Your task to perform on an android device: change your default location settings in chrome Image 0: 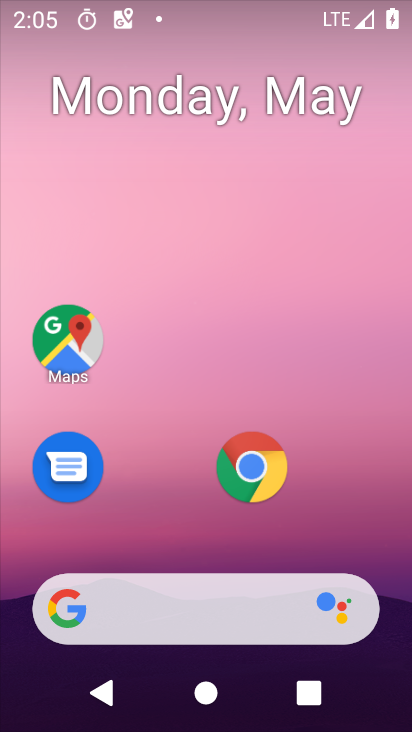
Step 0: drag from (189, 532) to (238, 213)
Your task to perform on an android device: change your default location settings in chrome Image 1: 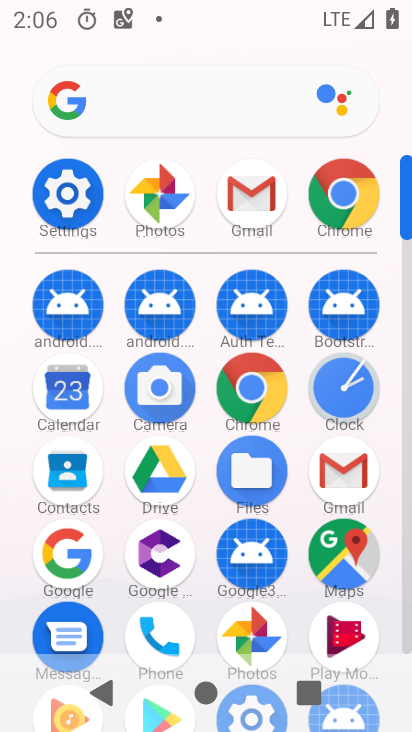
Step 1: click (237, 389)
Your task to perform on an android device: change your default location settings in chrome Image 2: 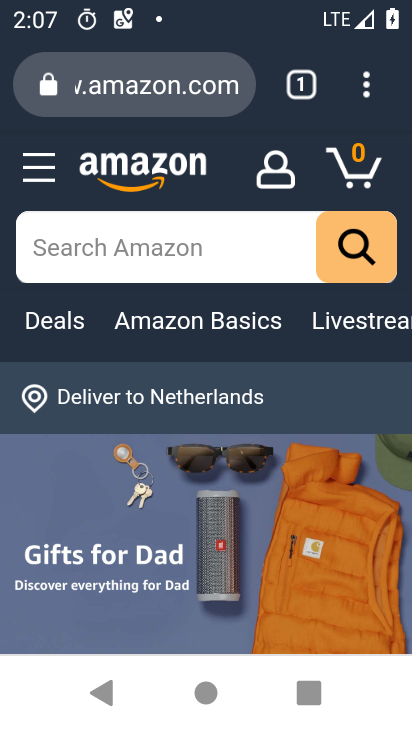
Step 2: click (361, 88)
Your task to perform on an android device: change your default location settings in chrome Image 3: 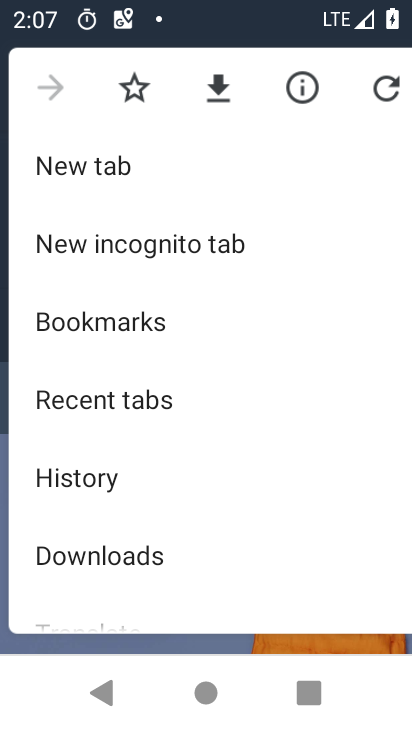
Step 3: click (176, 234)
Your task to perform on an android device: change your default location settings in chrome Image 4: 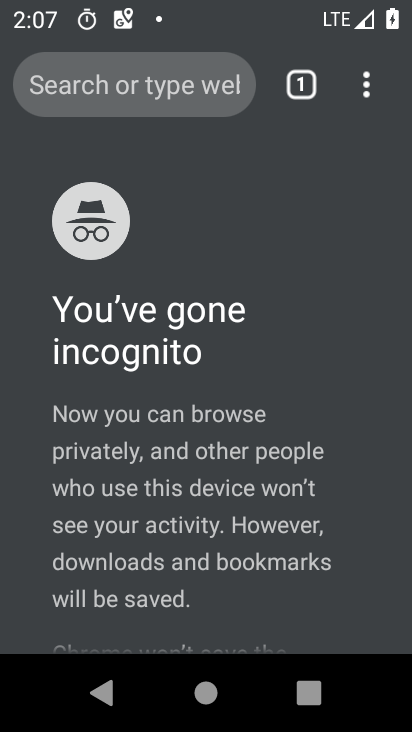
Step 4: drag from (295, 499) to (307, 327)
Your task to perform on an android device: change your default location settings in chrome Image 5: 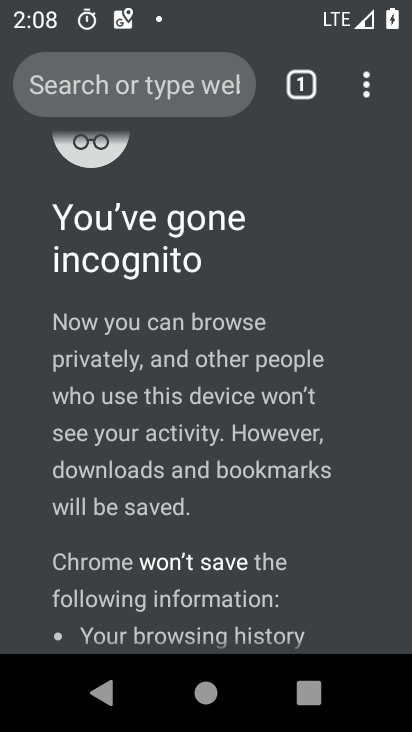
Step 5: click (363, 75)
Your task to perform on an android device: change your default location settings in chrome Image 6: 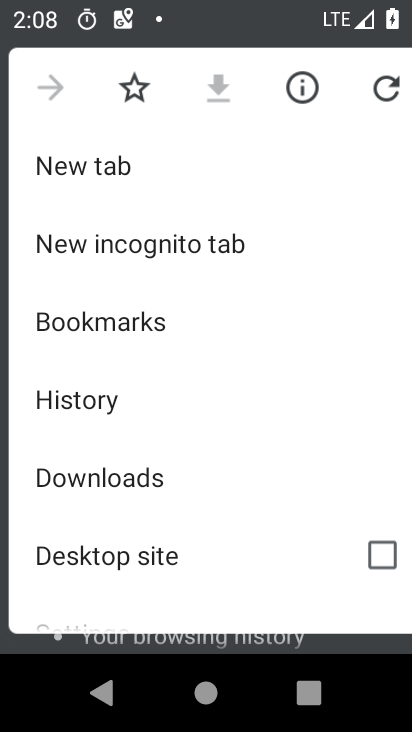
Step 6: drag from (189, 429) to (314, 135)
Your task to perform on an android device: change your default location settings in chrome Image 7: 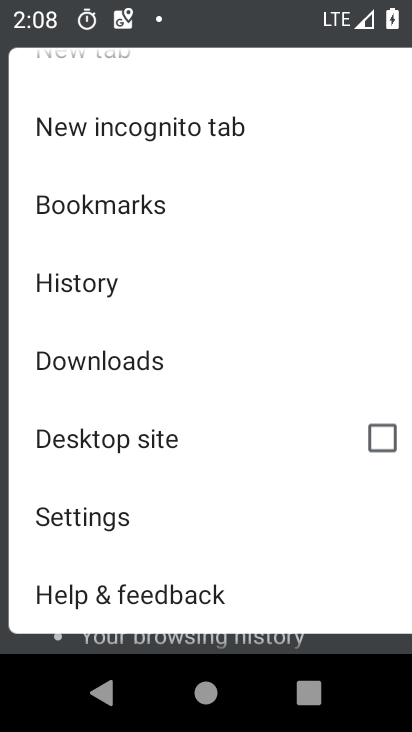
Step 7: click (108, 518)
Your task to perform on an android device: change your default location settings in chrome Image 8: 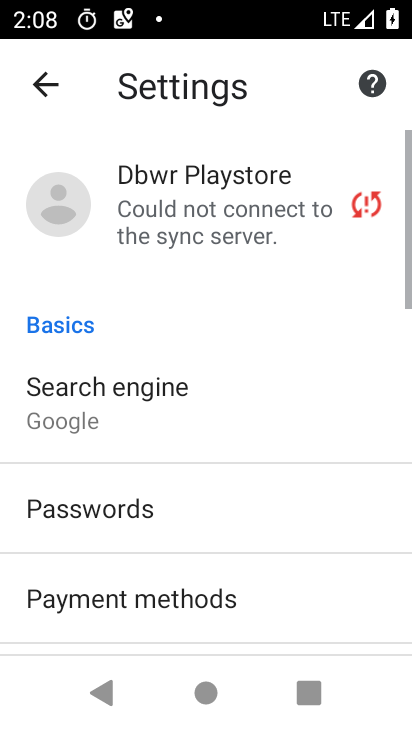
Step 8: drag from (182, 562) to (334, 148)
Your task to perform on an android device: change your default location settings in chrome Image 9: 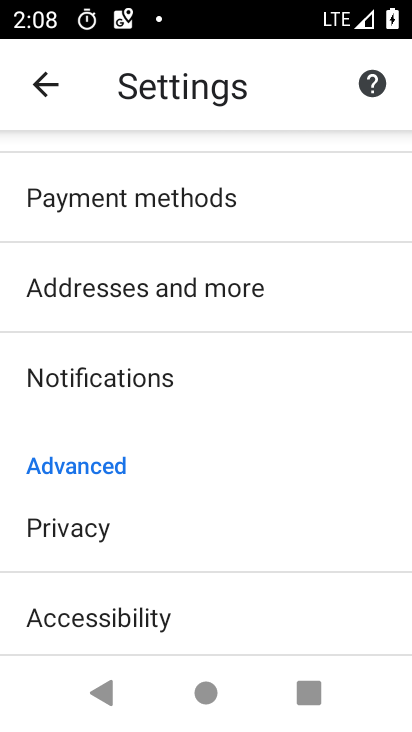
Step 9: drag from (192, 580) to (230, 392)
Your task to perform on an android device: change your default location settings in chrome Image 10: 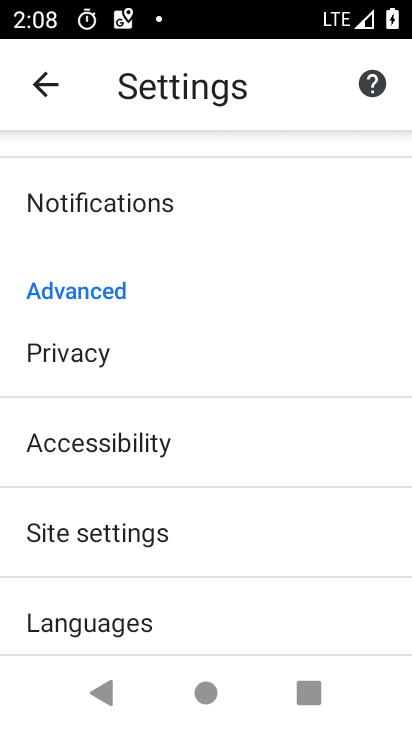
Step 10: click (142, 525)
Your task to perform on an android device: change your default location settings in chrome Image 11: 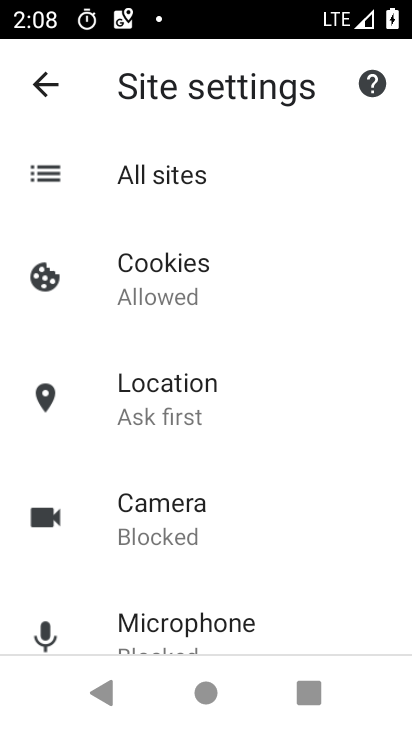
Step 11: click (162, 423)
Your task to perform on an android device: change your default location settings in chrome Image 12: 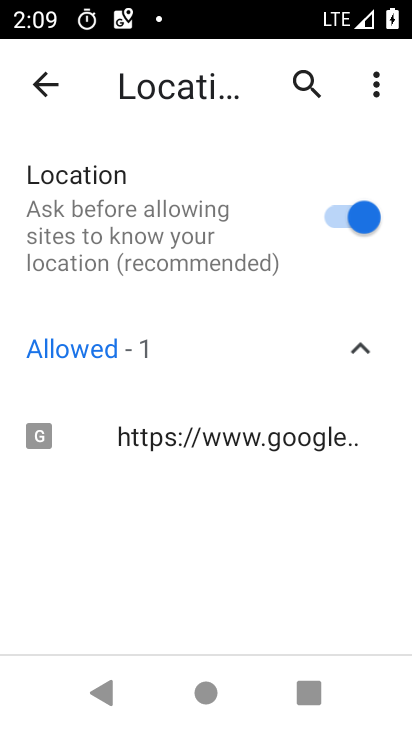
Step 12: task complete